Your task to perform on an android device: Go to Wikipedia Image 0: 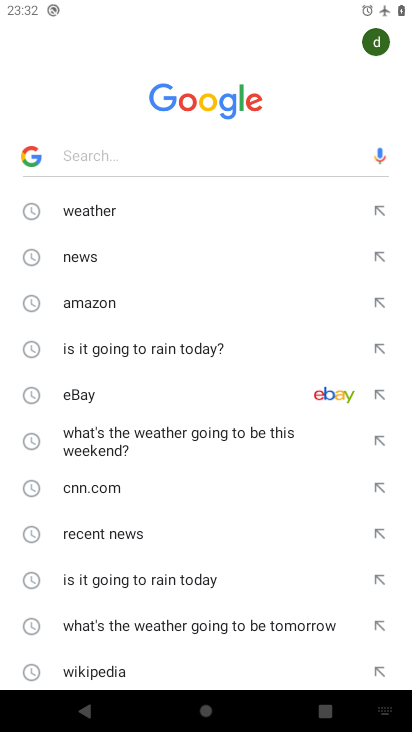
Step 0: press back button
Your task to perform on an android device: Go to Wikipedia Image 1: 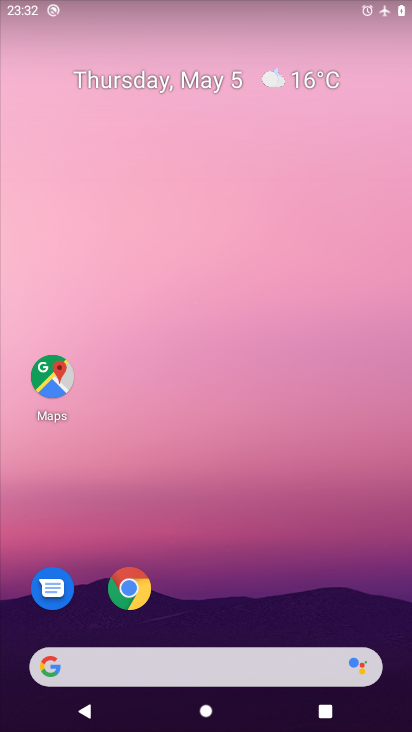
Step 1: click (139, 573)
Your task to perform on an android device: Go to Wikipedia Image 2: 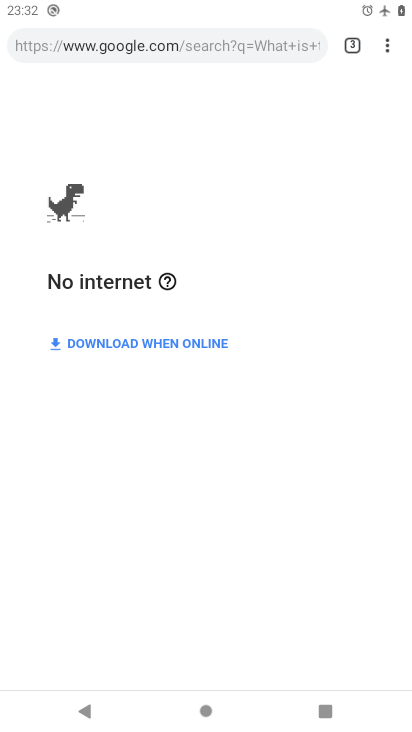
Step 2: drag from (342, 4) to (375, 367)
Your task to perform on an android device: Go to Wikipedia Image 3: 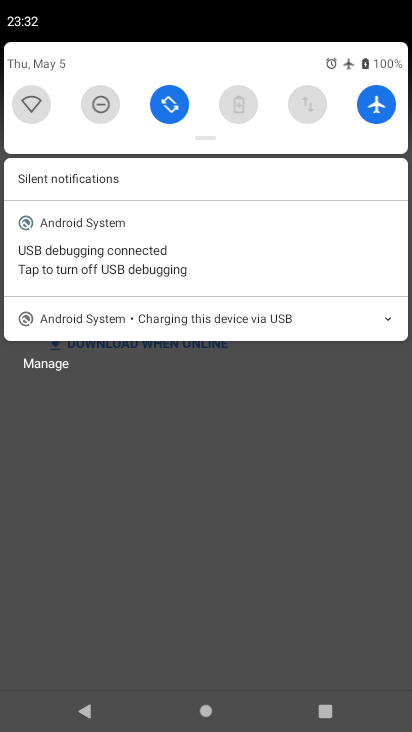
Step 3: click (373, 108)
Your task to perform on an android device: Go to Wikipedia Image 4: 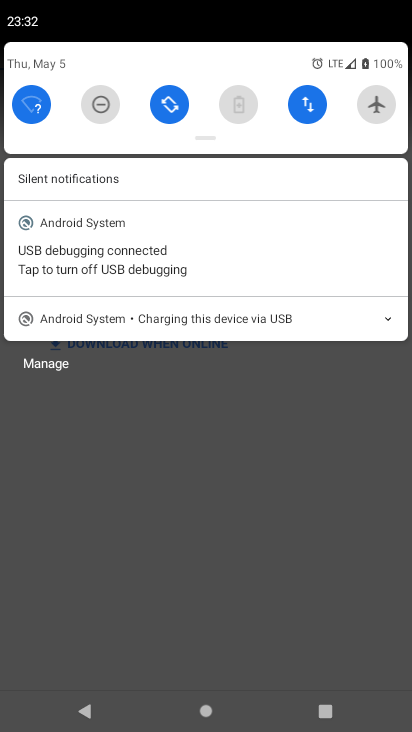
Step 4: click (325, 402)
Your task to perform on an android device: Go to Wikipedia Image 5: 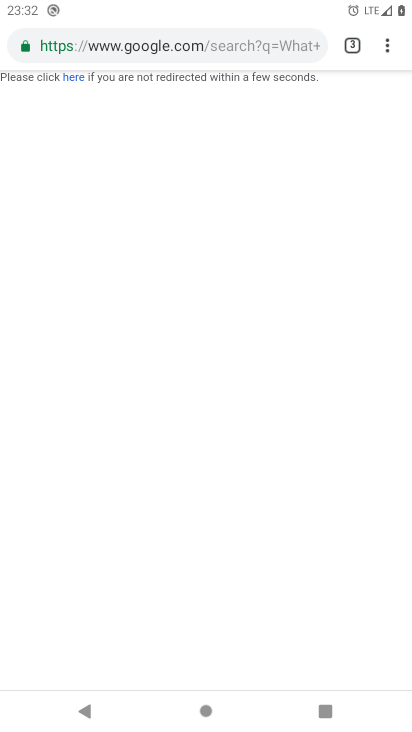
Step 5: click (347, 40)
Your task to perform on an android device: Go to Wikipedia Image 6: 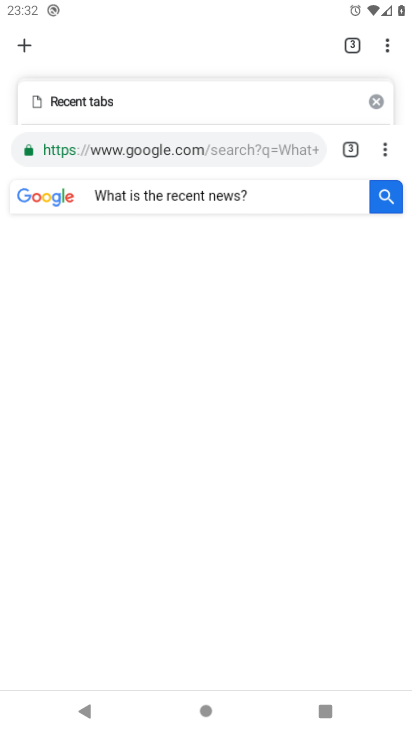
Step 6: click (28, 39)
Your task to perform on an android device: Go to Wikipedia Image 7: 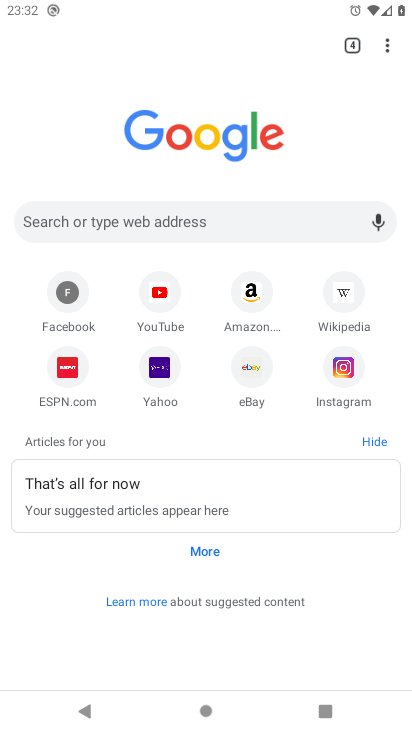
Step 7: click (344, 293)
Your task to perform on an android device: Go to Wikipedia Image 8: 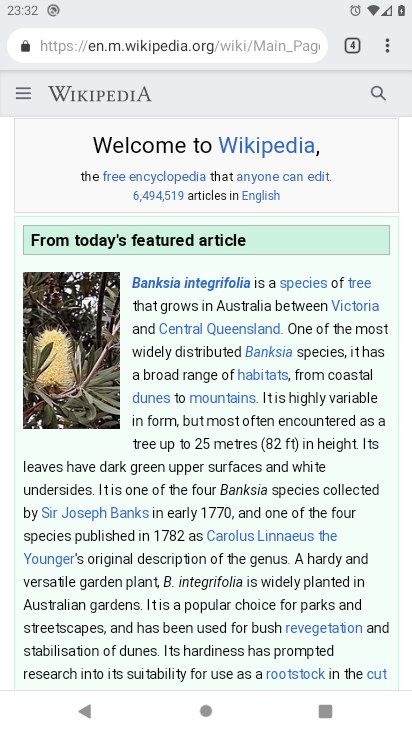
Step 8: task complete